Your task to perform on an android device: Open battery settings Image 0: 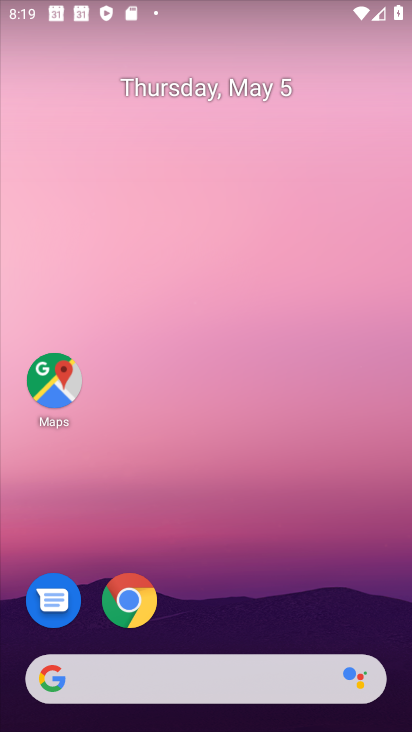
Step 0: drag from (393, 622) to (323, 77)
Your task to perform on an android device: Open battery settings Image 1: 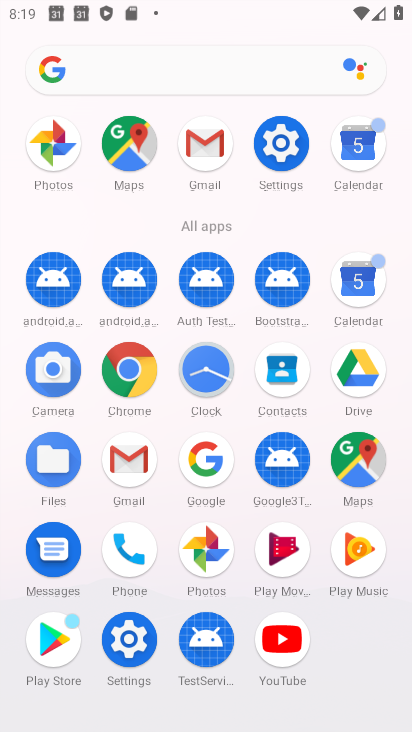
Step 1: click (128, 640)
Your task to perform on an android device: Open battery settings Image 2: 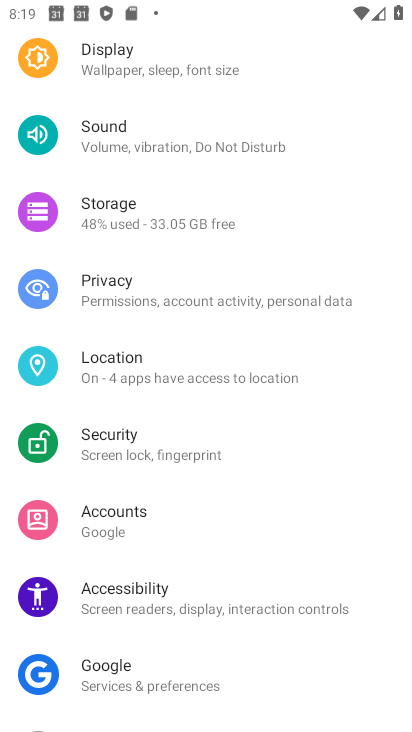
Step 2: drag from (352, 119) to (352, 445)
Your task to perform on an android device: Open battery settings Image 3: 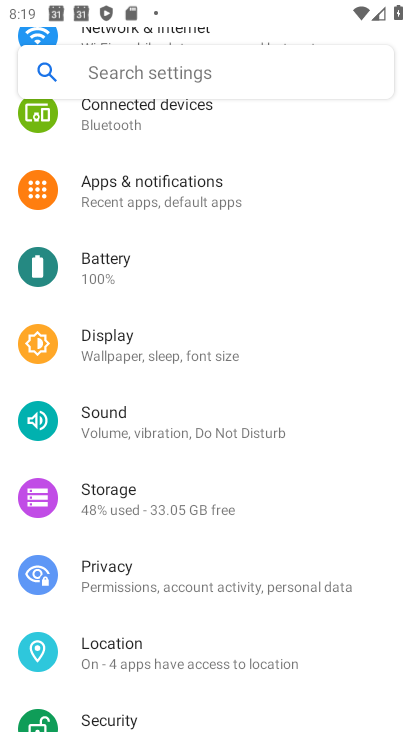
Step 3: click (96, 259)
Your task to perform on an android device: Open battery settings Image 4: 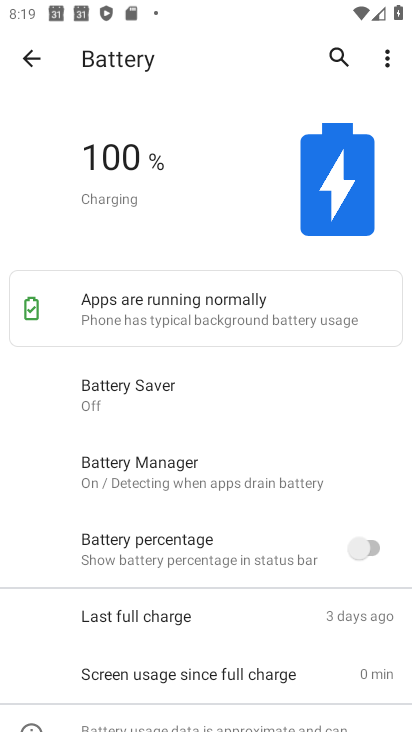
Step 4: task complete